Your task to perform on an android device: Check my email Image 0: 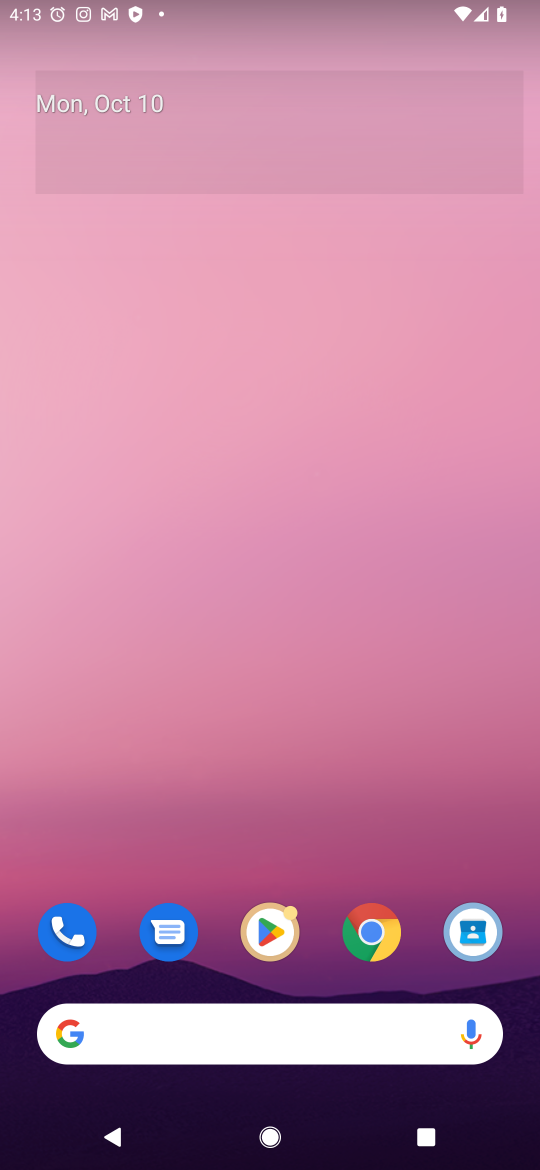
Step 0: press home button
Your task to perform on an android device: Check my email Image 1: 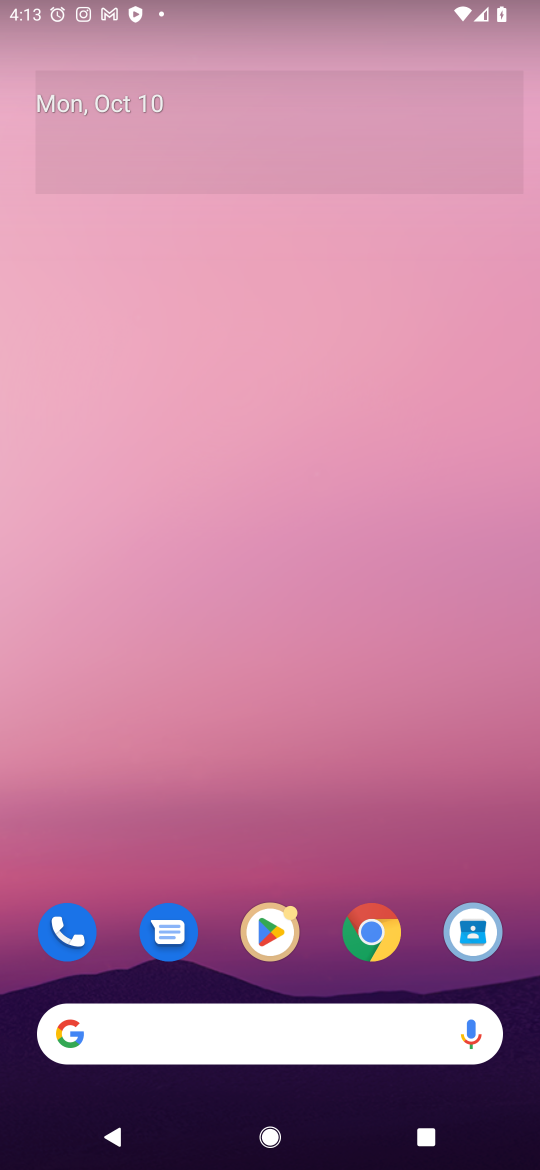
Step 1: drag from (455, 745) to (454, 101)
Your task to perform on an android device: Check my email Image 2: 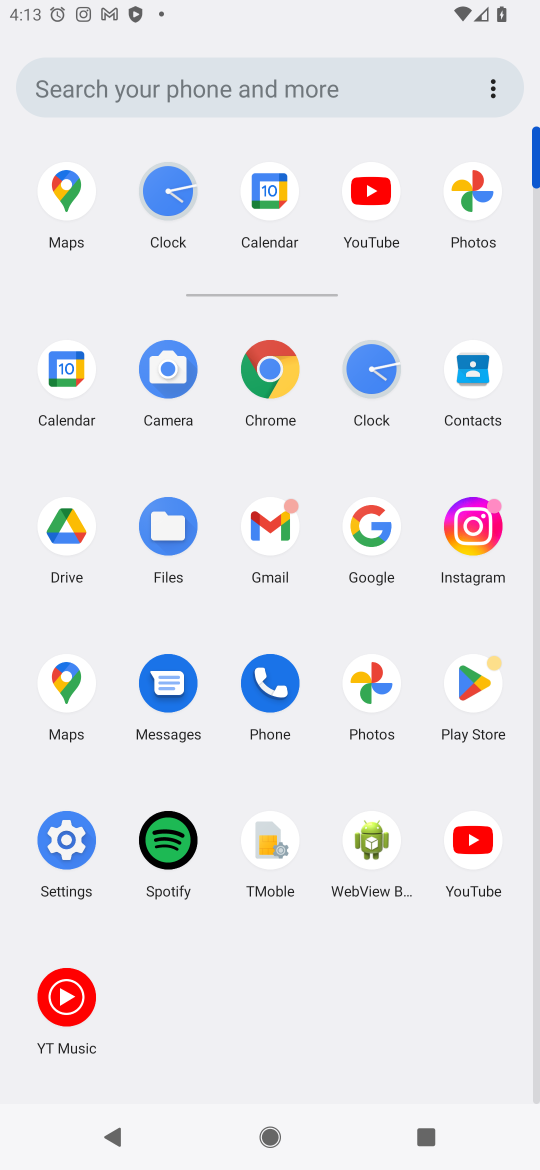
Step 2: click (266, 520)
Your task to perform on an android device: Check my email Image 3: 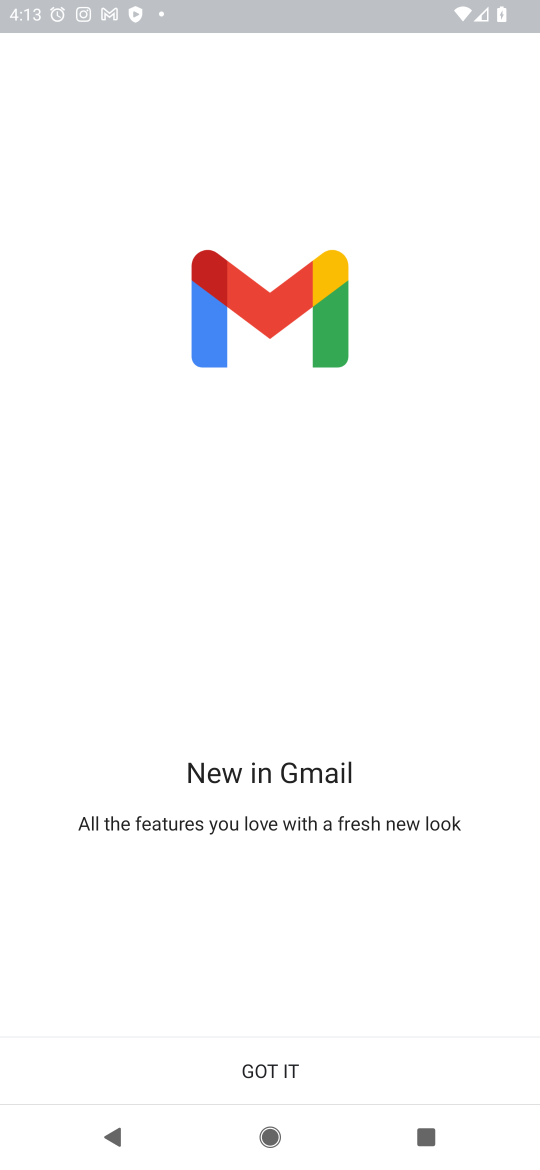
Step 3: click (268, 1074)
Your task to perform on an android device: Check my email Image 4: 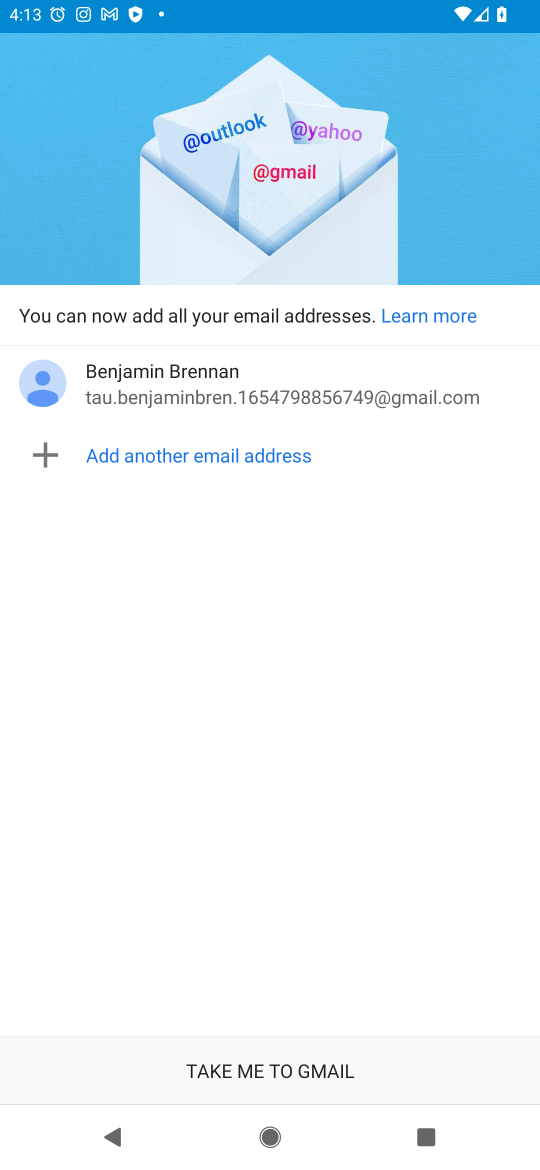
Step 4: click (330, 1079)
Your task to perform on an android device: Check my email Image 5: 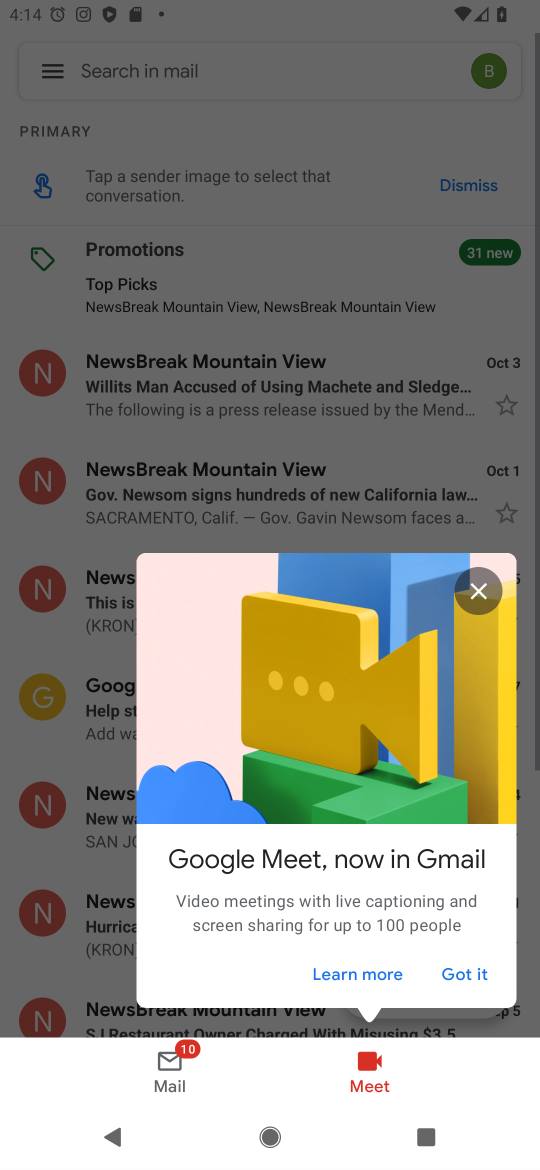
Step 5: click (474, 593)
Your task to perform on an android device: Check my email Image 6: 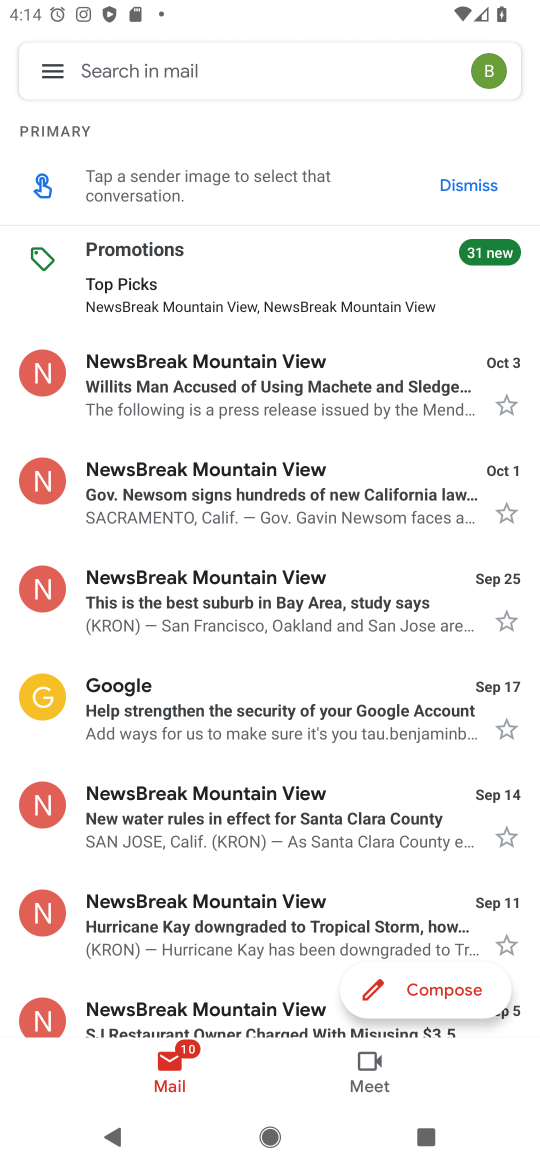
Step 6: task complete